Your task to perform on an android device: delete location history Image 0: 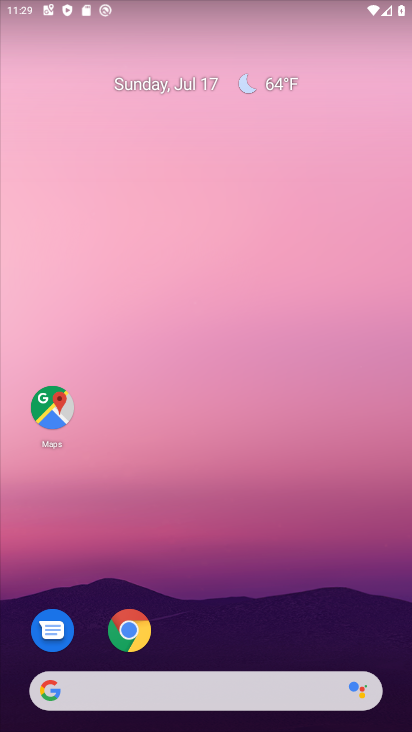
Step 0: click (376, 618)
Your task to perform on an android device: delete location history Image 1: 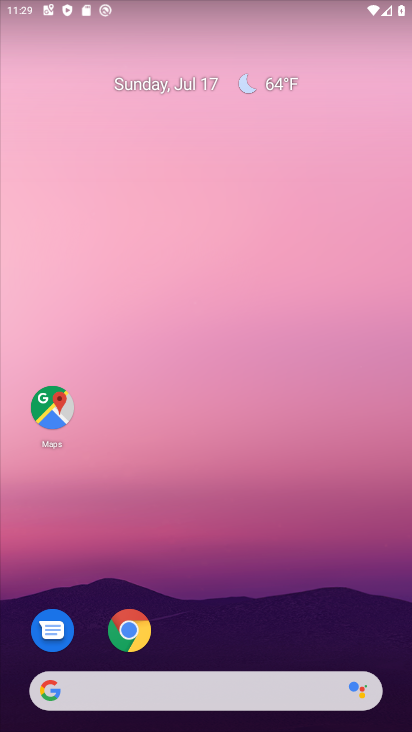
Step 1: click (52, 408)
Your task to perform on an android device: delete location history Image 2: 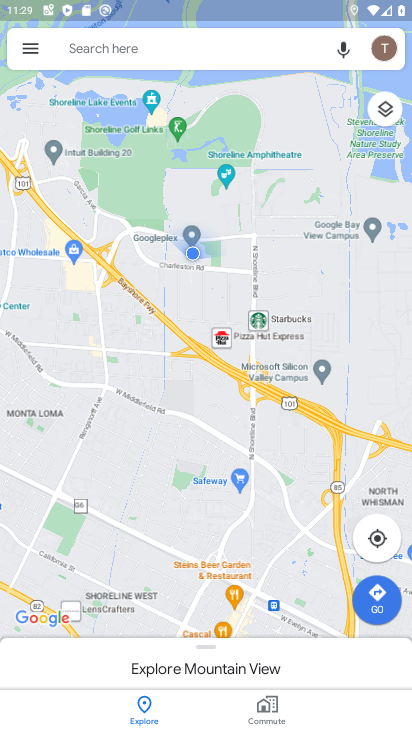
Step 2: click (32, 48)
Your task to perform on an android device: delete location history Image 3: 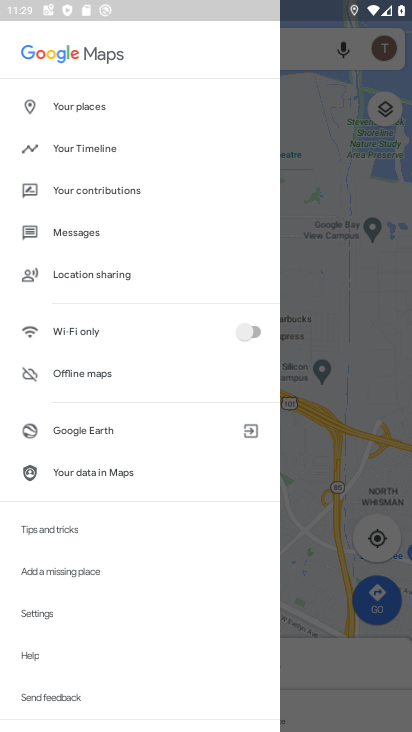
Step 3: click (42, 612)
Your task to perform on an android device: delete location history Image 4: 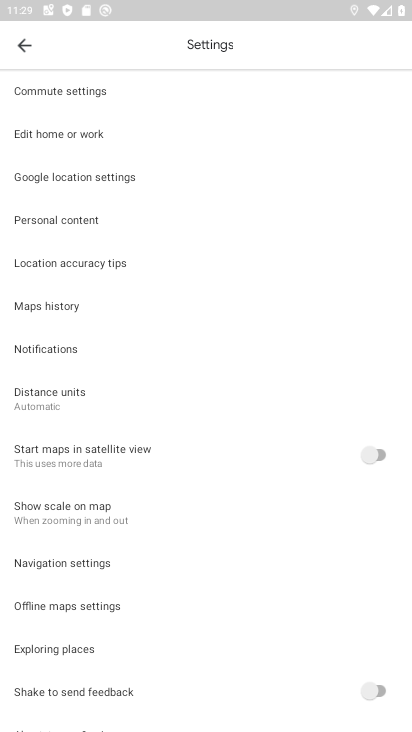
Step 4: click (57, 221)
Your task to perform on an android device: delete location history Image 5: 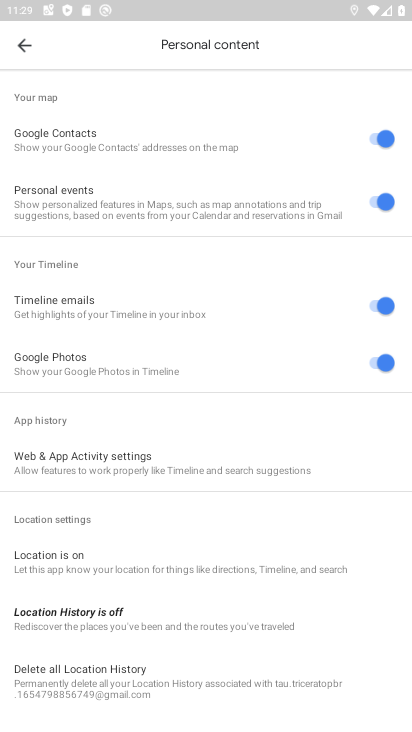
Step 5: click (93, 678)
Your task to perform on an android device: delete location history Image 6: 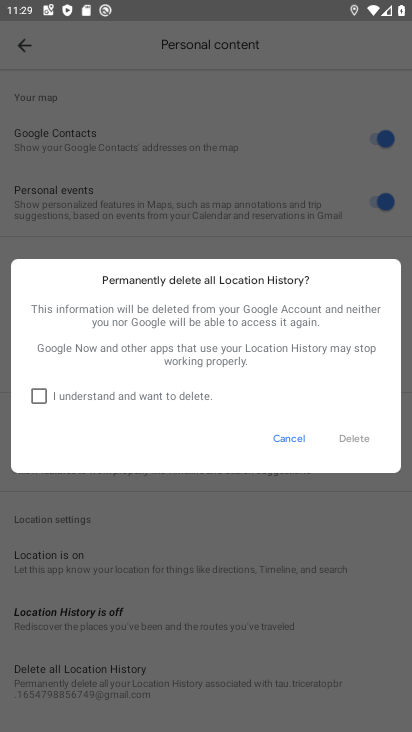
Step 6: click (37, 397)
Your task to perform on an android device: delete location history Image 7: 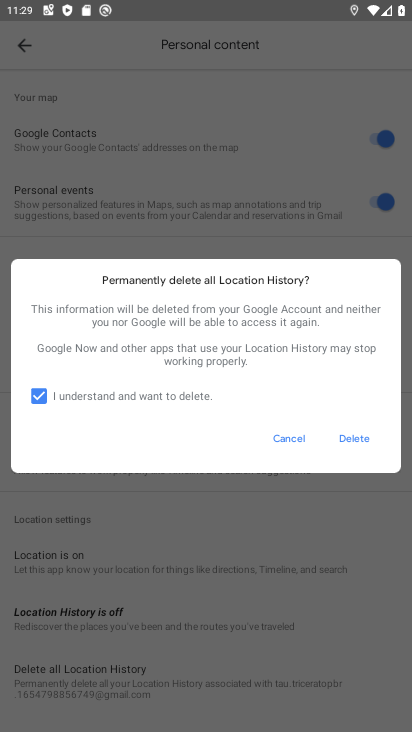
Step 7: click (357, 437)
Your task to perform on an android device: delete location history Image 8: 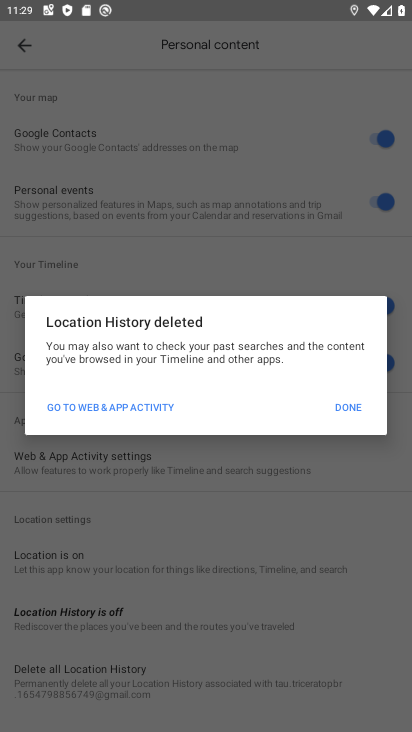
Step 8: click (347, 406)
Your task to perform on an android device: delete location history Image 9: 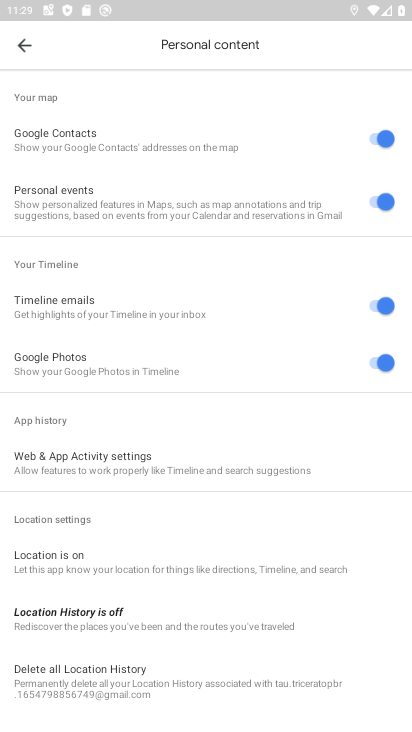
Step 9: task complete